Your task to perform on an android device: read, delete, or share a saved page in the chrome app Image 0: 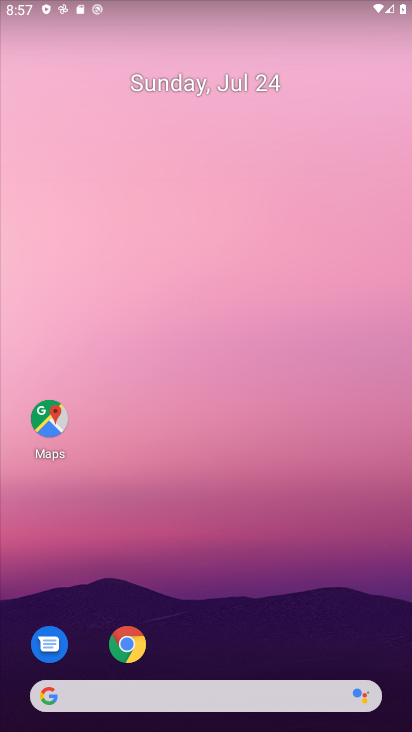
Step 0: drag from (234, 361) to (228, 250)
Your task to perform on an android device: read, delete, or share a saved page in the chrome app Image 1: 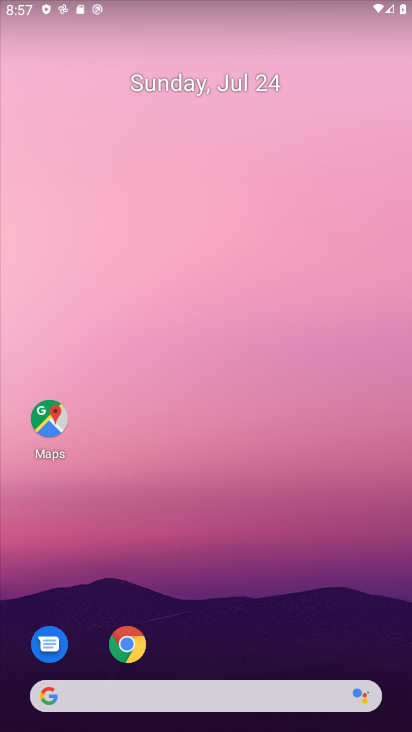
Step 1: drag from (248, 593) to (189, 85)
Your task to perform on an android device: read, delete, or share a saved page in the chrome app Image 2: 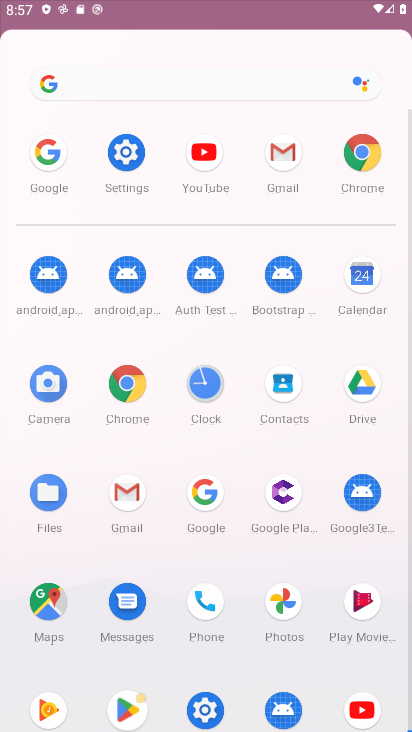
Step 2: drag from (205, 493) to (192, 196)
Your task to perform on an android device: read, delete, or share a saved page in the chrome app Image 3: 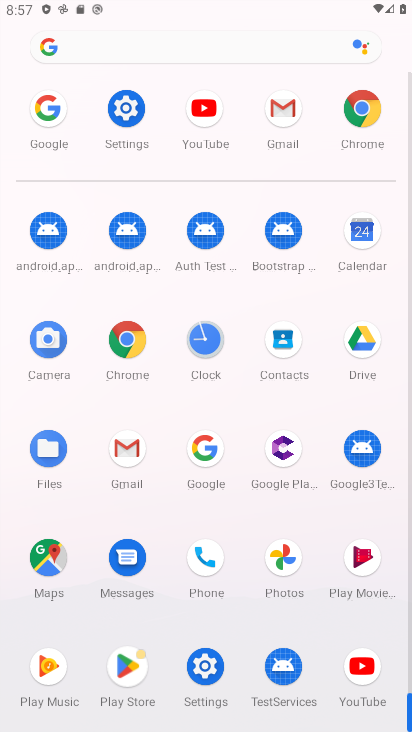
Step 3: click (369, 112)
Your task to perform on an android device: read, delete, or share a saved page in the chrome app Image 4: 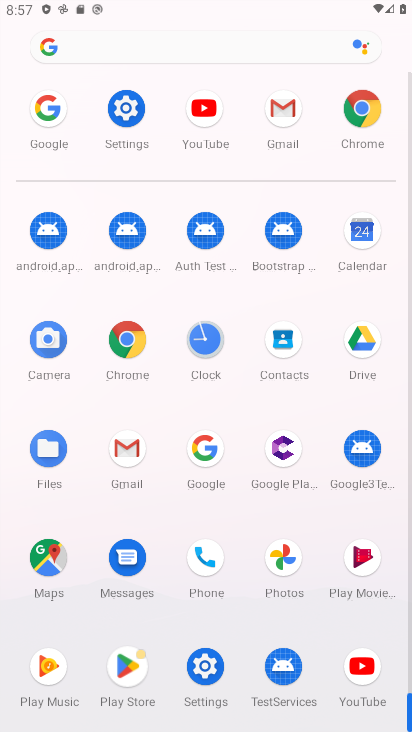
Step 4: click (369, 112)
Your task to perform on an android device: read, delete, or share a saved page in the chrome app Image 5: 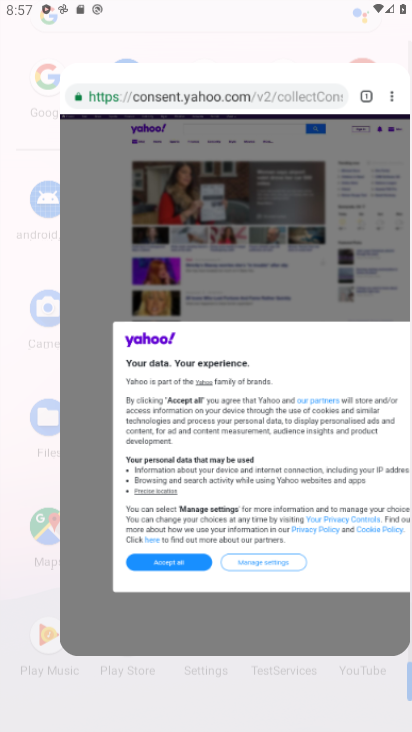
Step 5: click (363, 120)
Your task to perform on an android device: read, delete, or share a saved page in the chrome app Image 6: 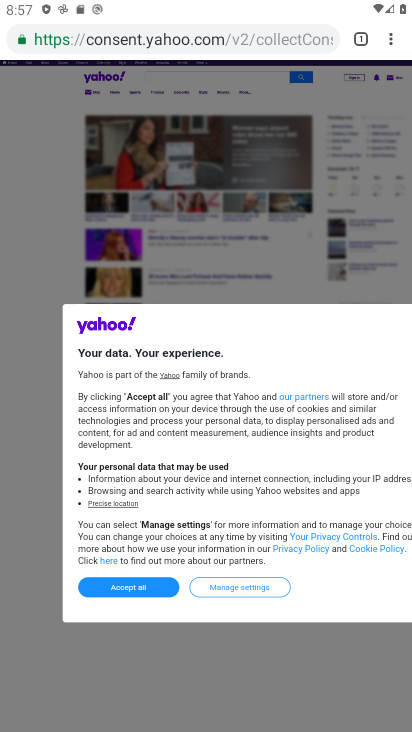
Step 6: click (391, 37)
Your task to perform on an android device: read, delete, or share a saved page in the chrome app Image 7: 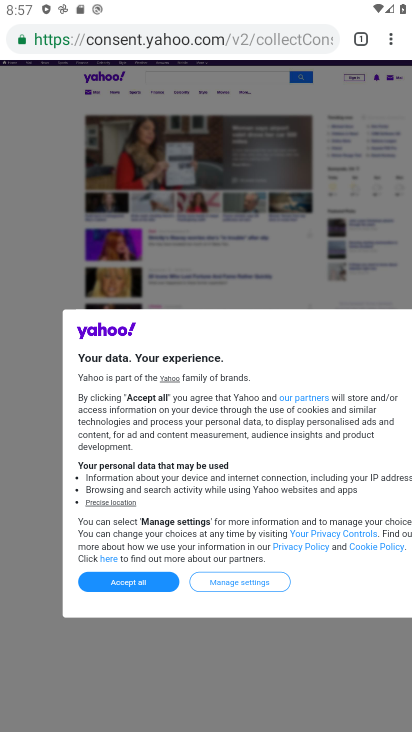
Step 7: click (393, 34)
Your task to perform on an android device: read, delete, or share a saved page in the chrome app Image 8: 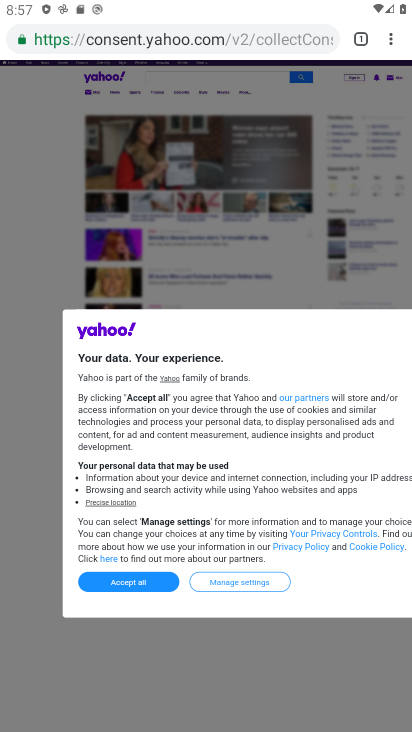
Step 8: drag from (394, 39) to (253, 258)
Your task to perform on an android device: read, delete, or share a saved page in the chrome app Image 9: 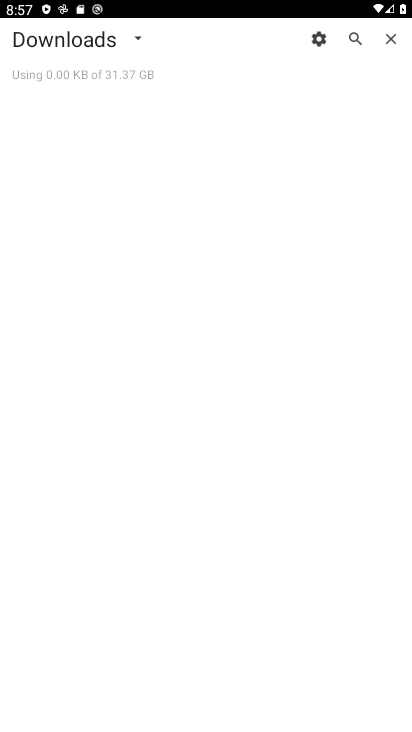
Step 9: click (255, 259)
Your task to perform on an android device: read, delete, or share a saved page in the chrome app Image 10: 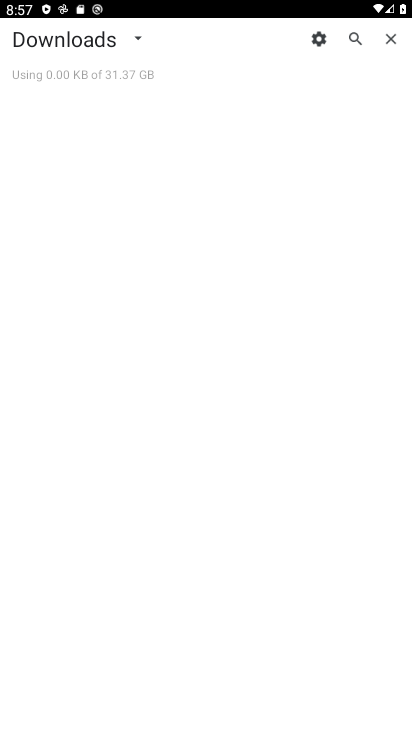
Step 10: click (133, 39)
Your task to perform on an android device: read, delete, or share a saved page in the chrome app Image 11: 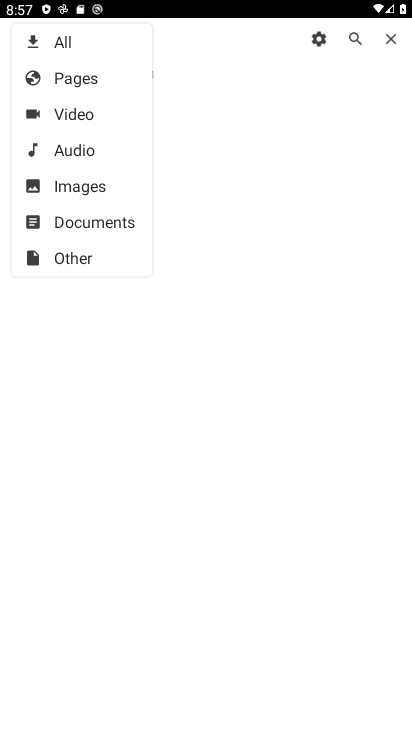
Step 11: click (74, 108)
Your task to perform on an android device: read, delete, or share a saved page in the chrome app Image 12: 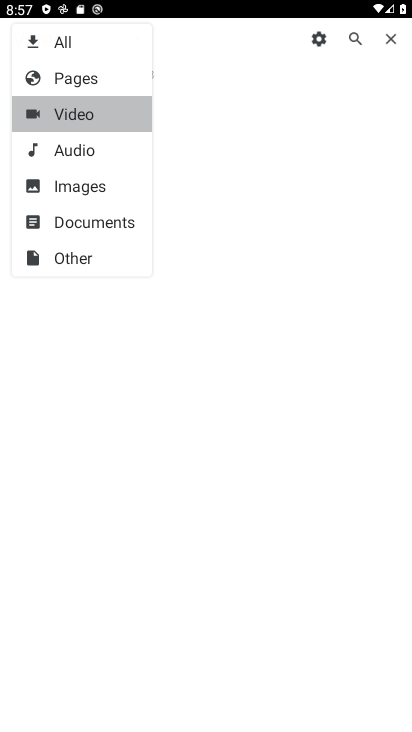
Step 12: click (78, 113)
Your task to perform on an android device: read, delete, or share a saved page in the chrome app Image 13: 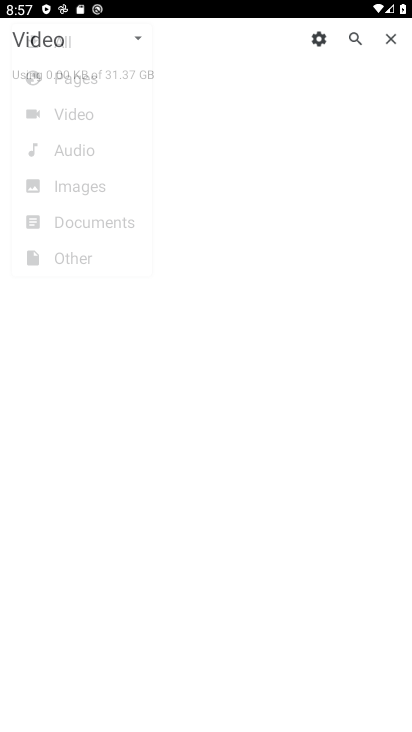
Step 13: click (81, 114)
Your task to perform on an android device: read, delete, or share a saved page in the chrome app Image 14: 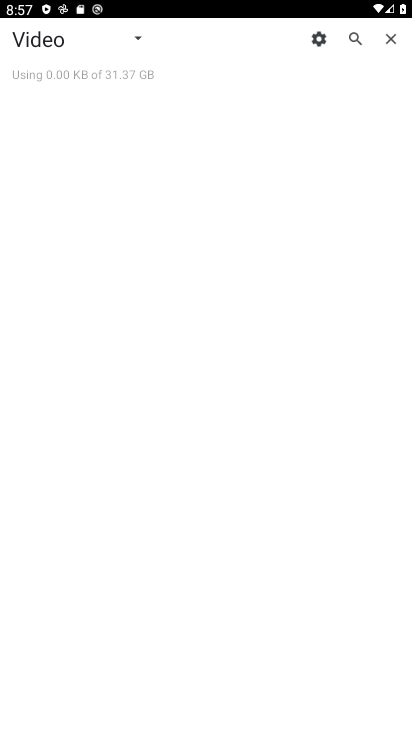
Step 14: click (84, 115)
Your task to perform on an android device: read, delete, or share a saved page in the chrome app Image 15: 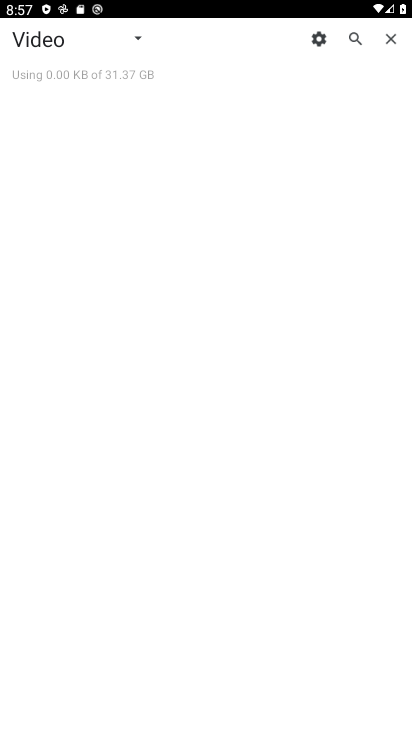
Step 15: task complete